Your task to perform on an android device: change the clock display to show seconds Image 0: 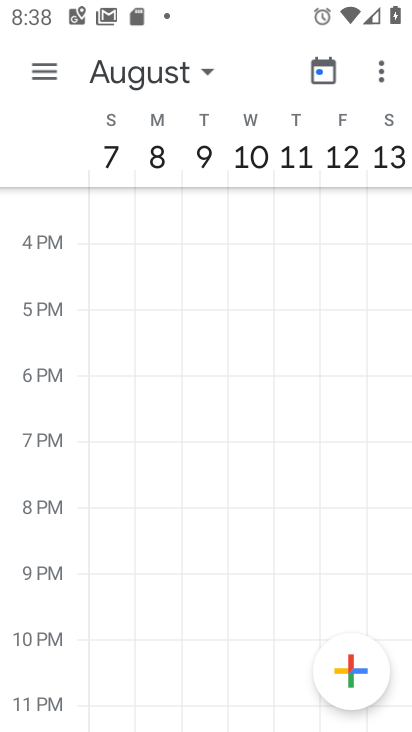
Step 0: press home button
Your task to perform on an android device: change the clock display to show seconds Image 1: 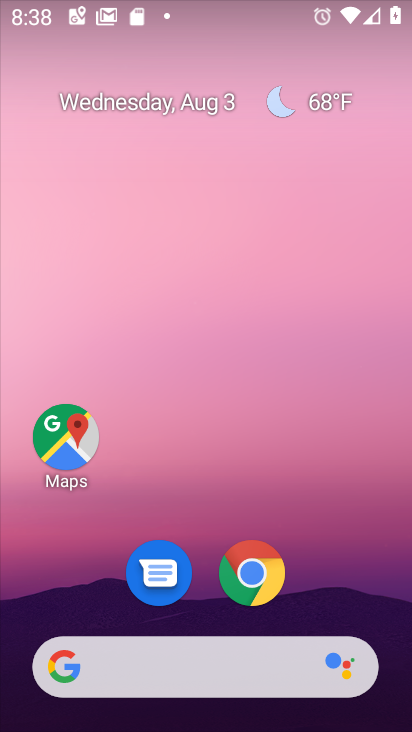
Step 1: drag from (349, 630) to (333, 13)
Your task to perform on an android device: change the clock display to show seconds Image 2: 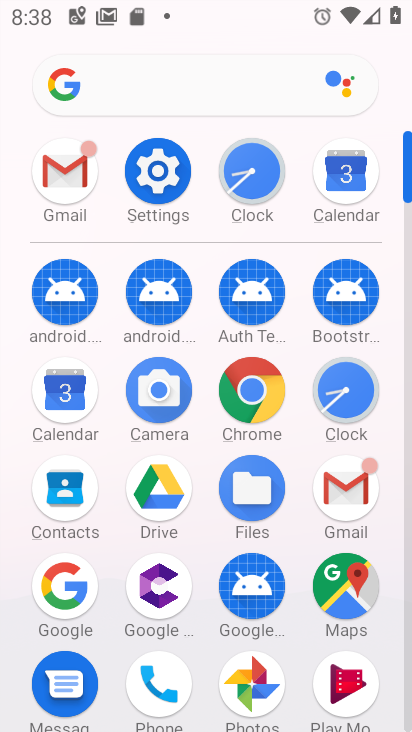
Step 2: click (244, 178)
Your task to perform on an android device: change the clock display to show seconds Image 3: 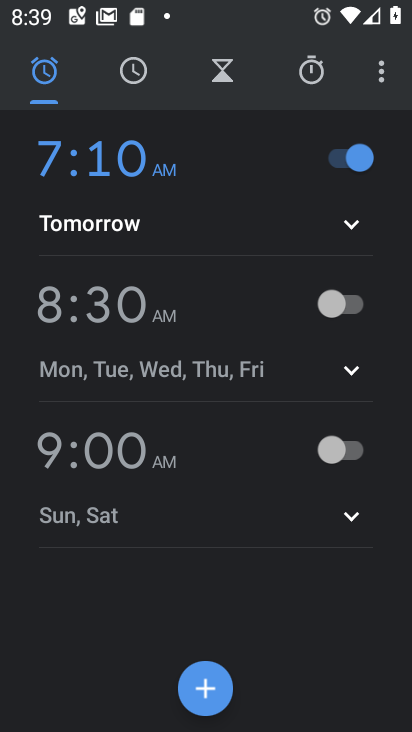
Step 3: click (380, 78)
Your task to perform on an android device: change the clock display to show seconds Image 4: 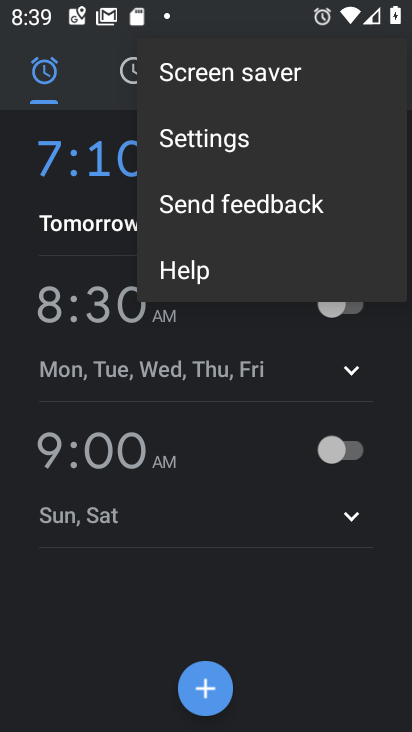
Step 4: click (189, 149)
Your task to perform on an android device: change the clock display to show seconds Image 5: 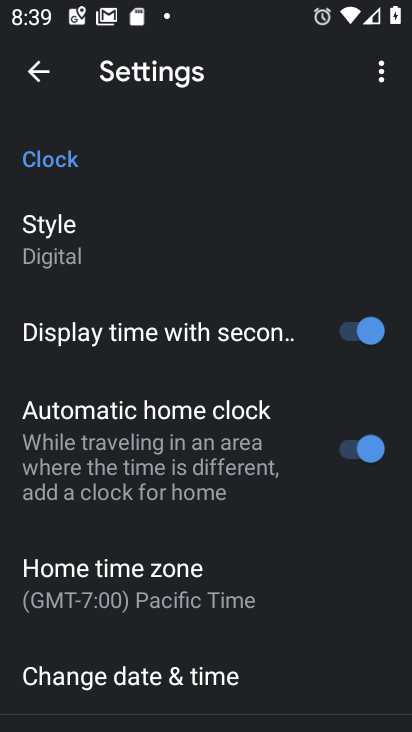
Step 5: task complete